Your task to perform on an android device: Open display settings Image 0: 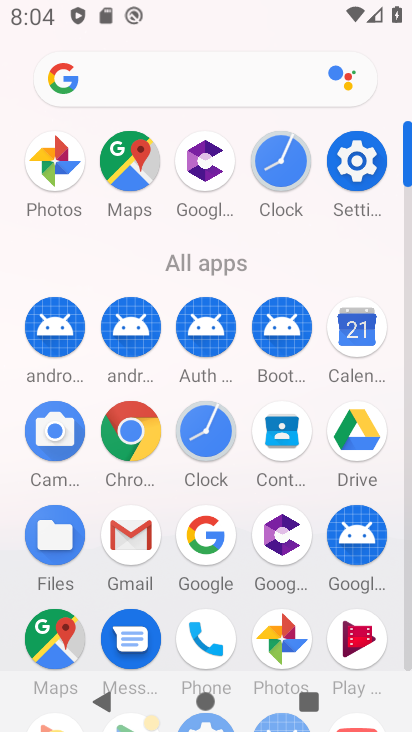
Step 0: click (349, 170)
Your task to perform on an android device: Open display settings Image 1: 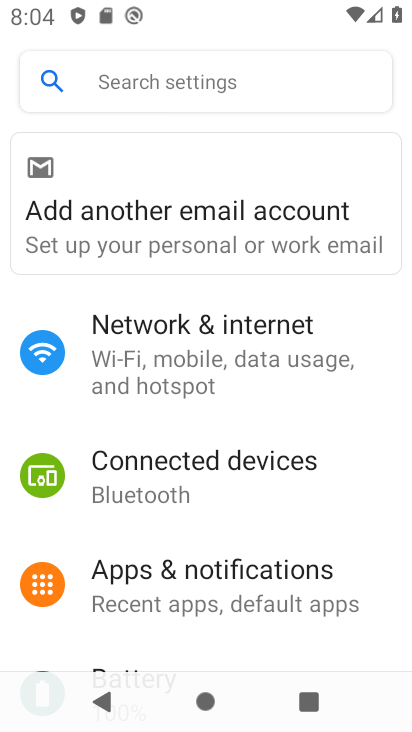
Step 1: drag from (201, 594) to (213, 60)
Your task to perform on an android device: Open display settings Image 2: 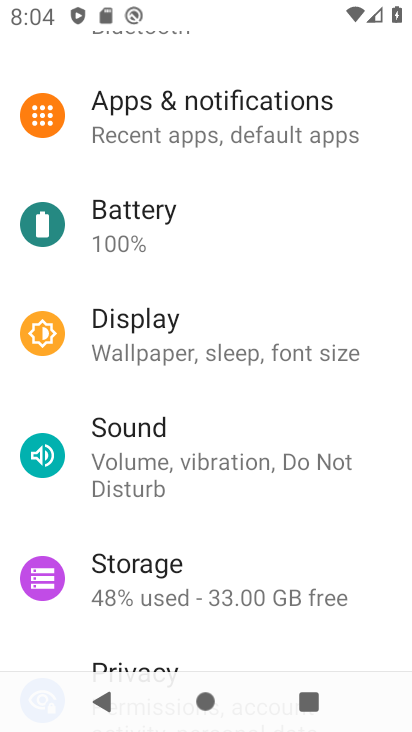
Step 2: click (155, 340)
Your task to perform on an android device: Open display settings Image 3: 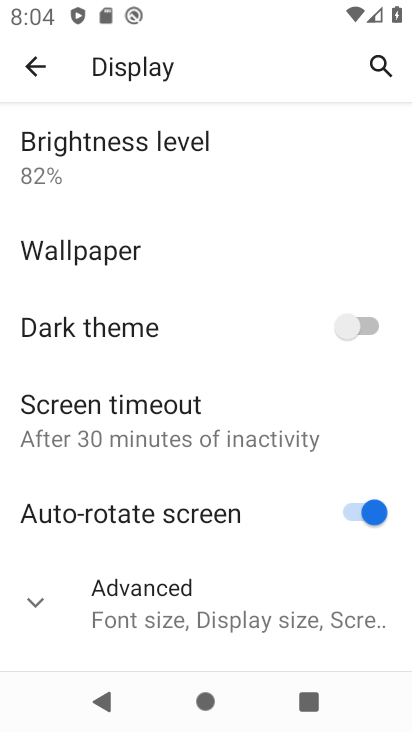
Step 3: task complete